Your task to perform on an android device: turn off location Image 0: 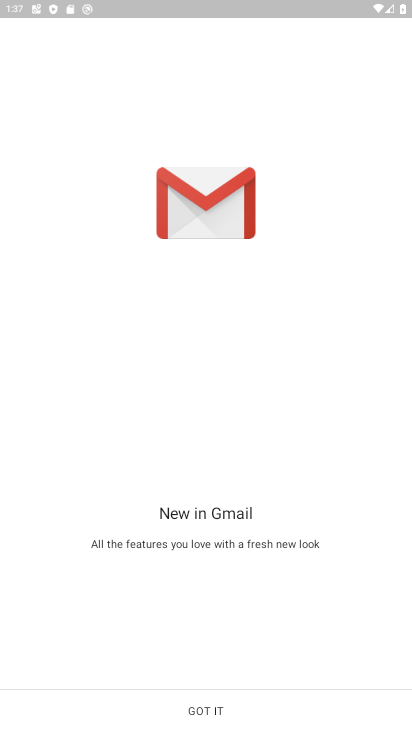
Step 0: press home button
Your task to perform on an android device: turn off location Image 1: 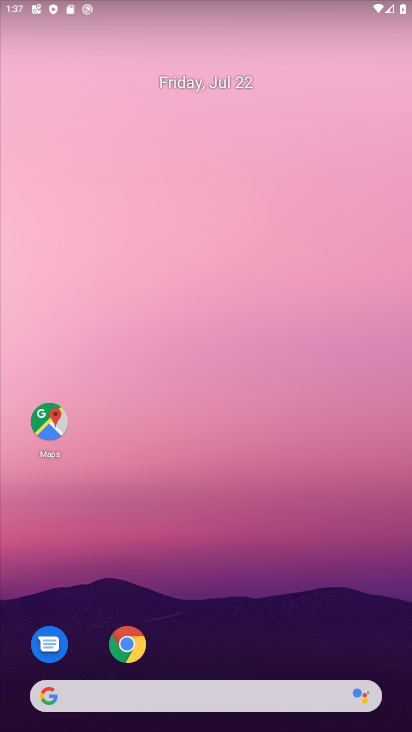
Step 1: drag from (172, 594) to (158, 253)
Your task to perform on an android device: turn off location Image 2: 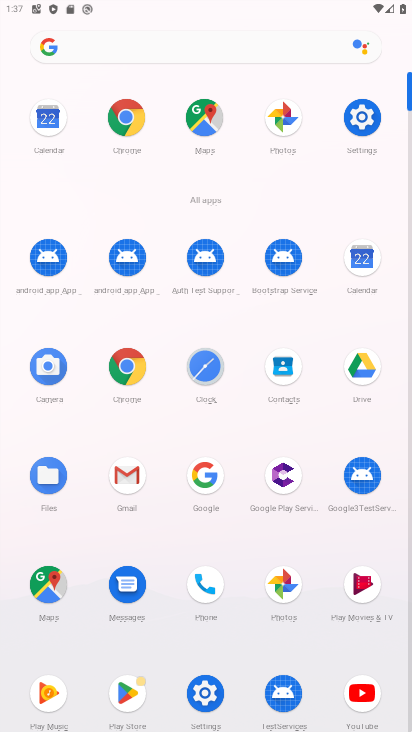
Step 2: click (368, 119)
Your task to perform on an android device: turn off location Image 3: 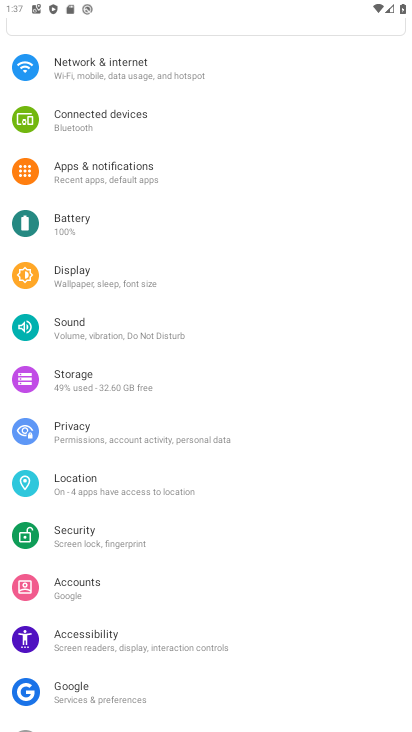
Step 3: click (110, 484)
Your task to perform on an android device: turn off location Image 4: 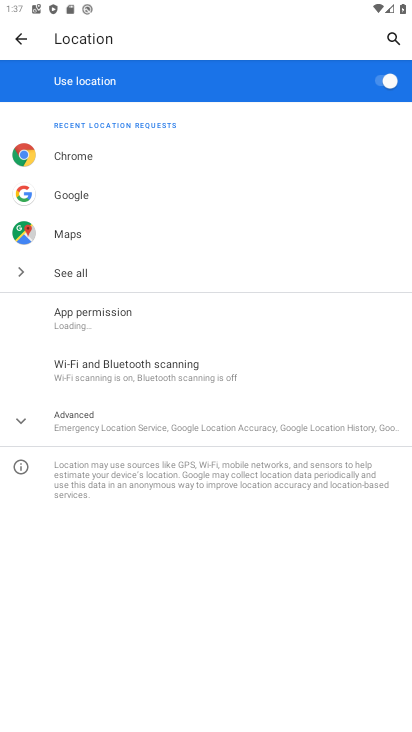
Step 4: click (386, 72)
Your task to perform on an android device: turn off location Image 5: 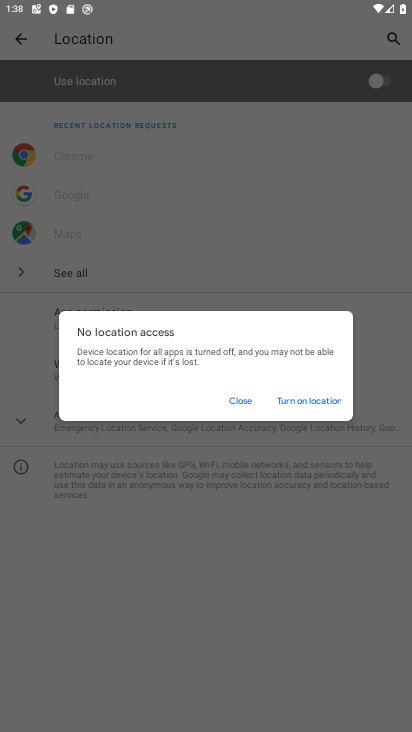
Step 5: click (292, 532)
Your task to perform on an android device: turn off location Image 6: 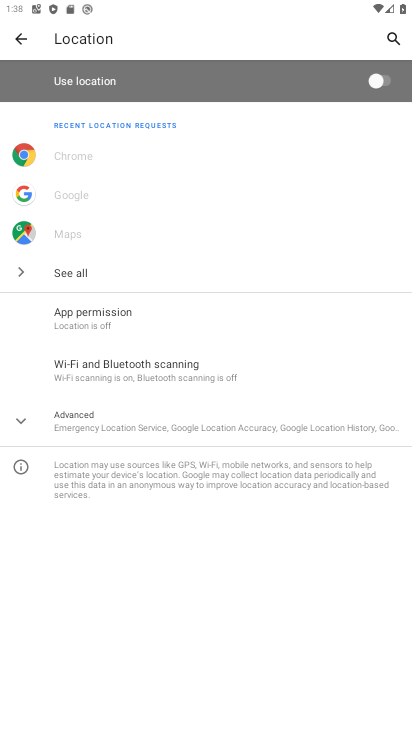
Step 6: task complete